Your task to perform on an android device: Go to notification settings Image 0: 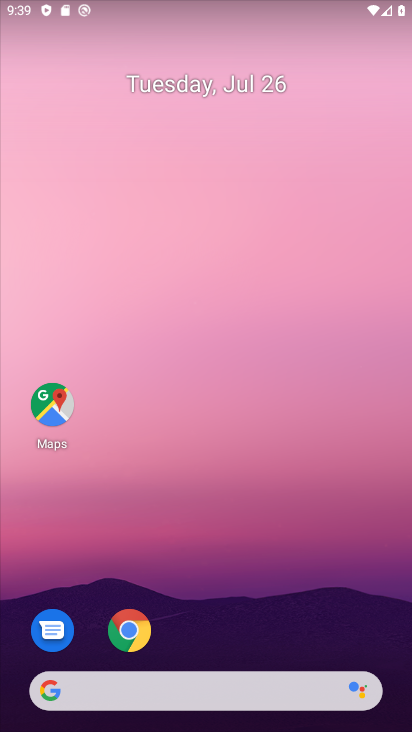
Step 0: drag from (383, 656) to (323, 220)
Your task to perform on an android device: Go to notification settings Image 1: 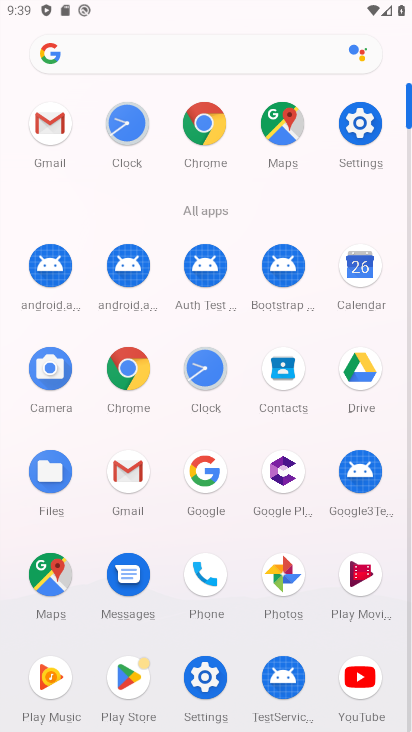
Step 1: click (202, 674)
Your task to perform on an android device: Go to notification settings Image 2: 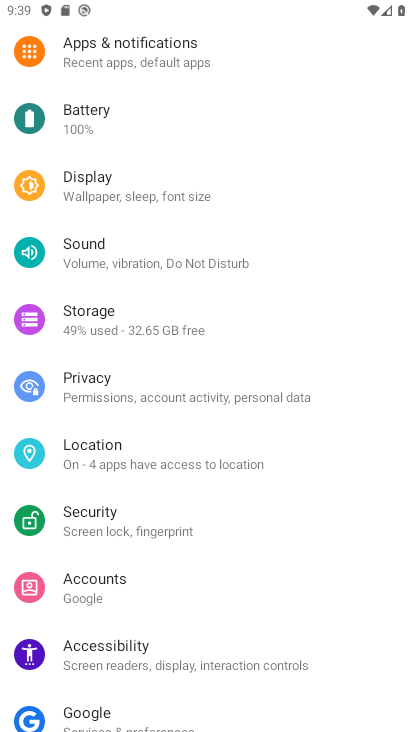
Step 2: click (120, 59)
Your task to perform on an android device: Go to notification settings Image 3: 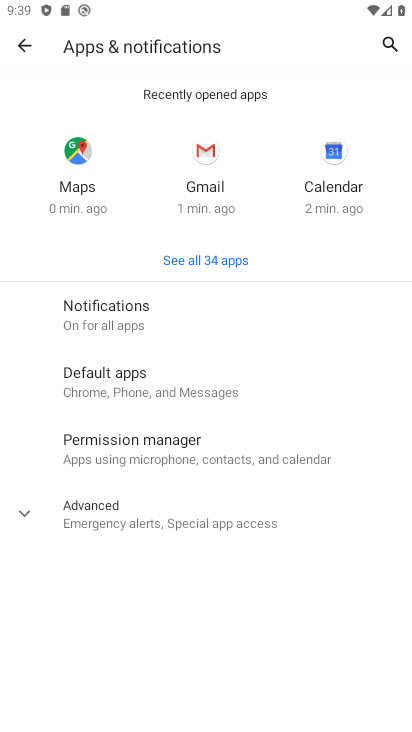
Step 3: click (110, 324)
Your task to perform on an android device: Go to notification settings Image 4: 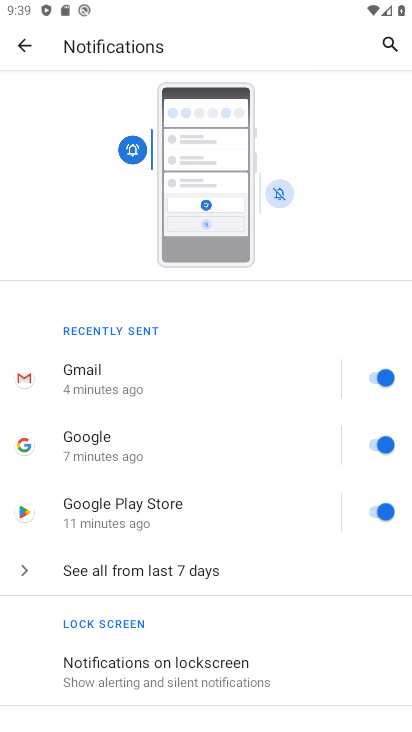
Step 4: drag from (252, 649) to (269, 297)
Your task to perform on an android device: Go to notification settings Image 5: 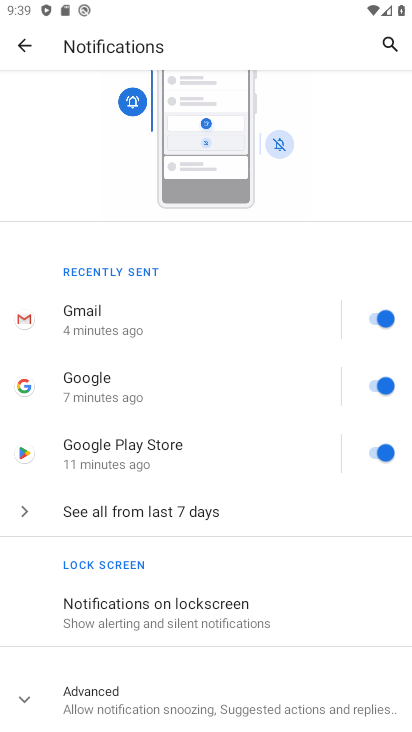
Step 5: click (16, 701)
Your task to perform on an android device: Go to notification settings Image 6: 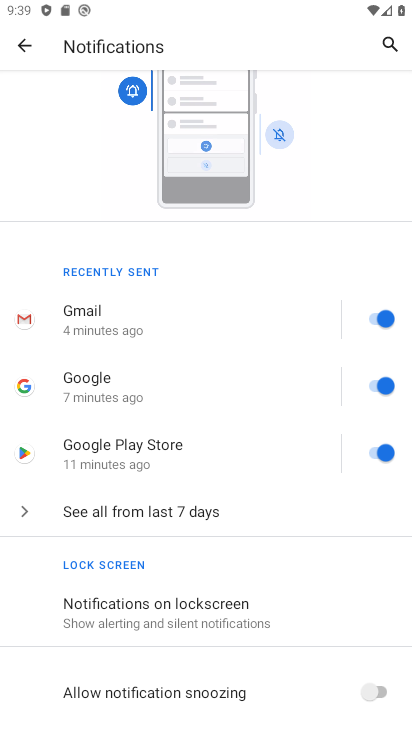
Step 6: task complete